Your task to perform on an android device: change the upload size in google photos Image 0: 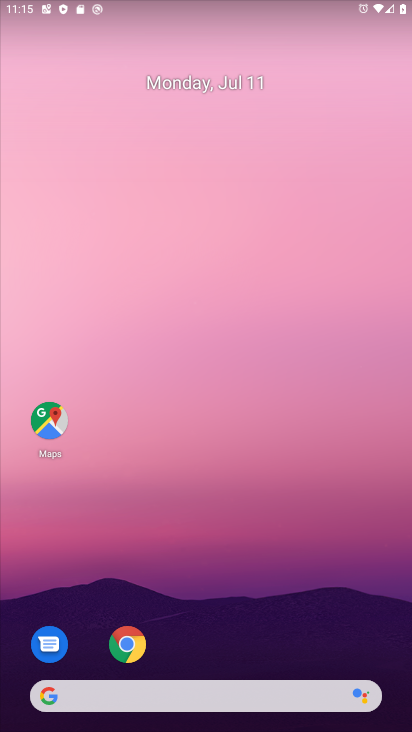
Step 0: press home button
Your task to perform on an android device: change the upload size in google photos Image 1: 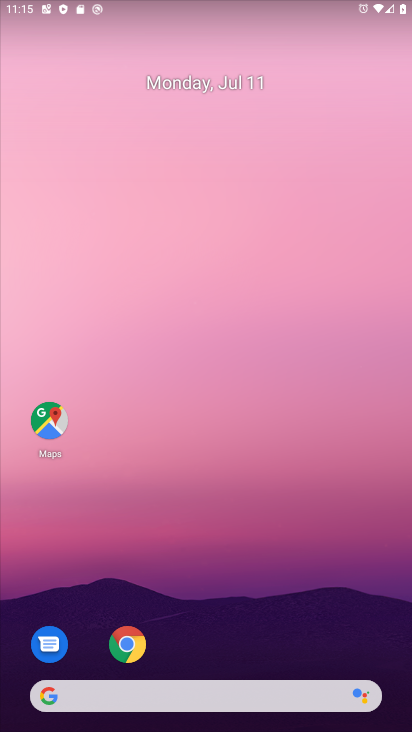
Step 1: drag from (205, 662) to (185, 102)
Your task to perform on an android device: change the upload size in google photos Image 2: 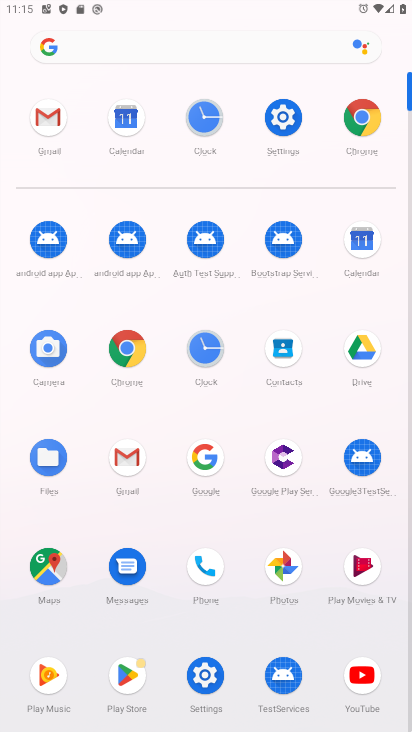
Step 2: click (280, 561)
Your task to perform on an android device: change the upload size in google photos Image 3: 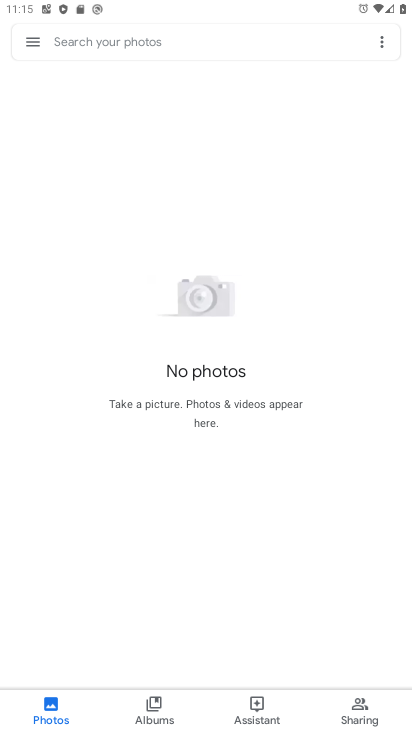
Step 3: click (22, 35)
Your task to perform on an android device: change the upload size in google photos Image 4: 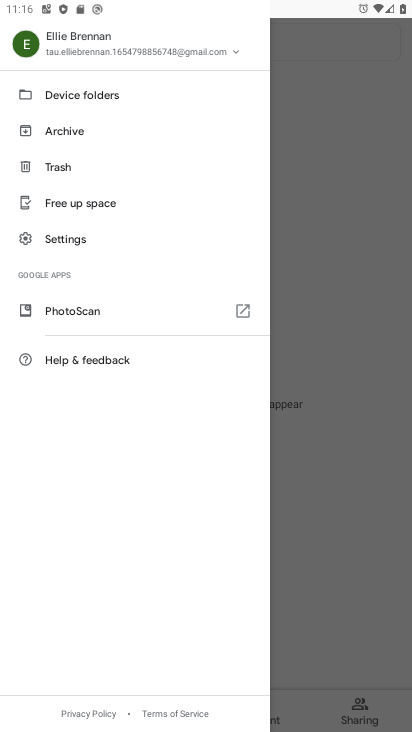
Step 4: click (81, 243)
Your task to perform on an android device: change the upload size in google photos Image 5: 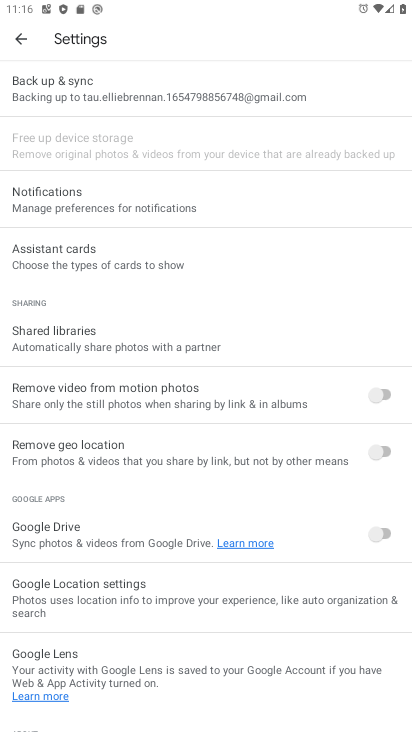
Step 5: click (100, 81)
Your task to perform on an android device: change the upload size in google photos Image 6: 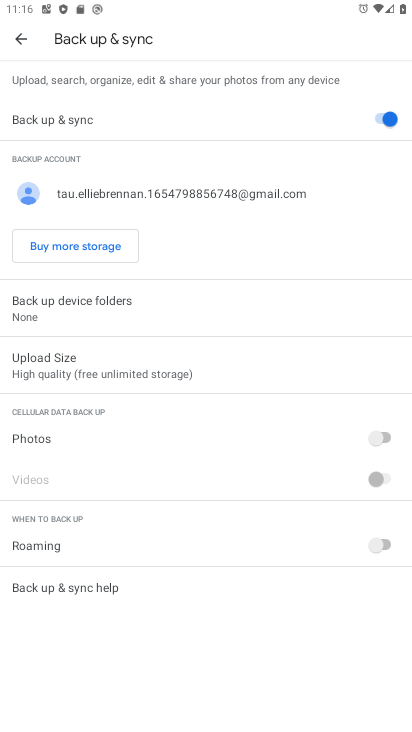
Step 6: task complete